Your task to perform on an android device: read, delete, or share a saved page in the chrome app Image 0: 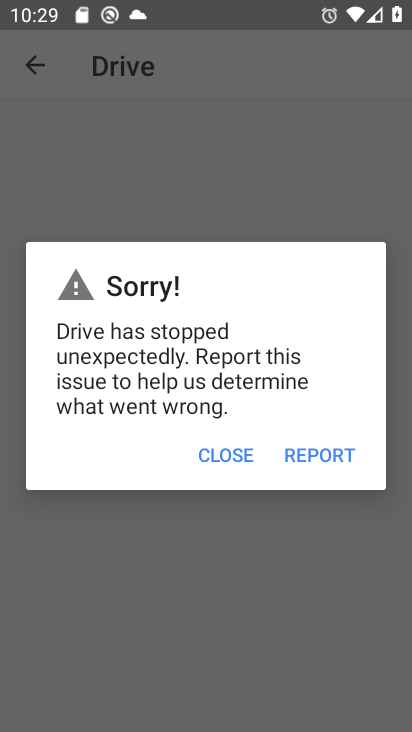
Step 0: drag from (312, 684) to (184, 183)
Your task to perform on an android device: read, delete, or share a saved page in the chrome app Image 1: 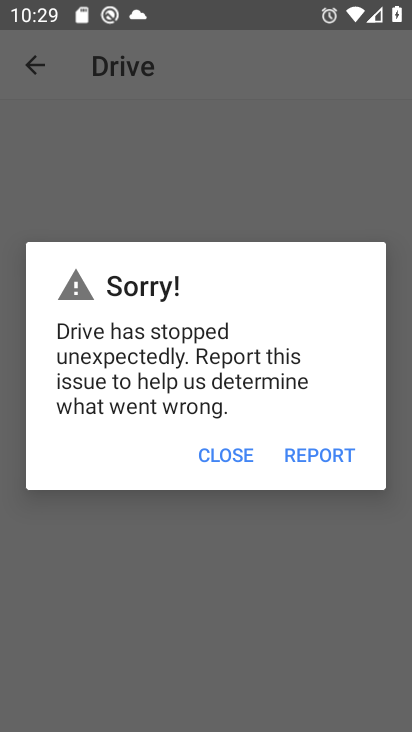
Step 1: click (212, 457)
Your task to perform on an android device: read, delete, or share a saved page in the chrome app Image 2: 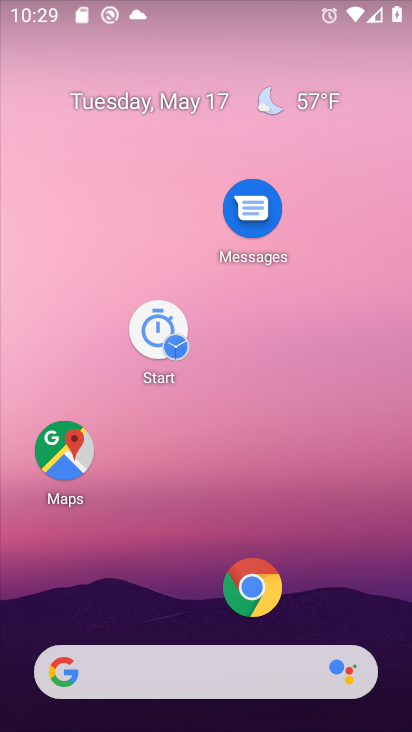
Step 2: drag from (276, 689) to (218, 185)
Your task to perform on an android device: read, delete, or share a saved page in the chrome app Image 3: 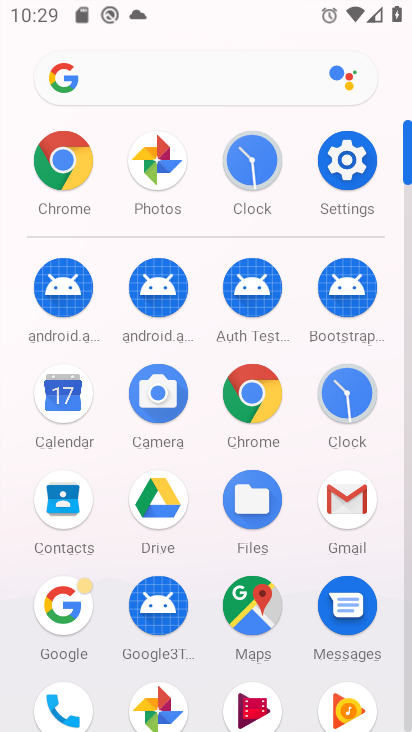
Step 3: click (61, 158)
Your task to perform on an android device: read, delete, or share a saved page in the chrome app Image 4: 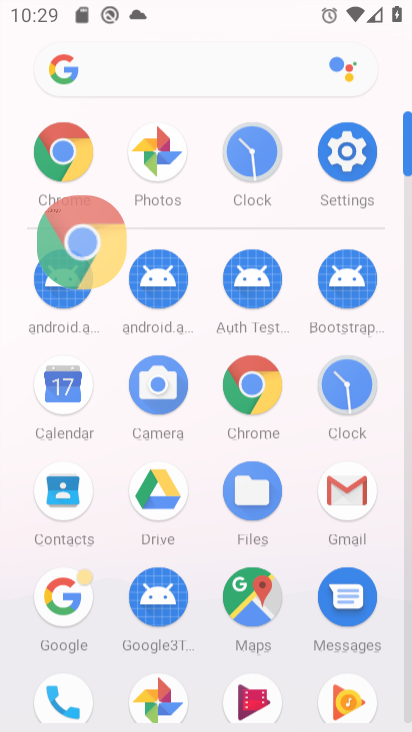
Step 4: click (50, 164)
Your task to perform on an android device: read, delete, or share a saved page in the chrome app Image 5: 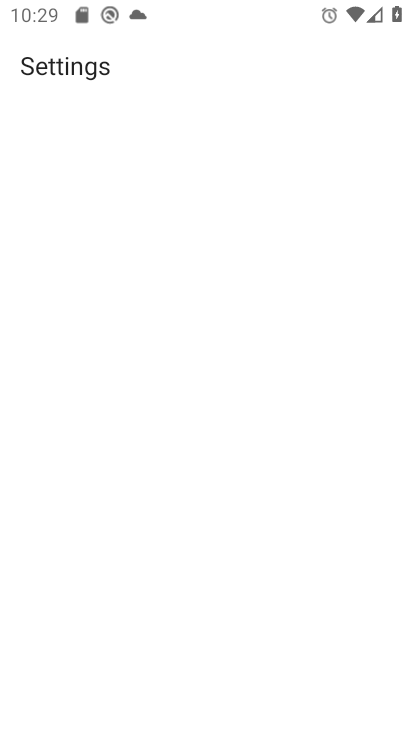
Step 5: click (29, 166)
Your task to perform on an android device: read, delete, or share a saved page in the chrome app Image 6: 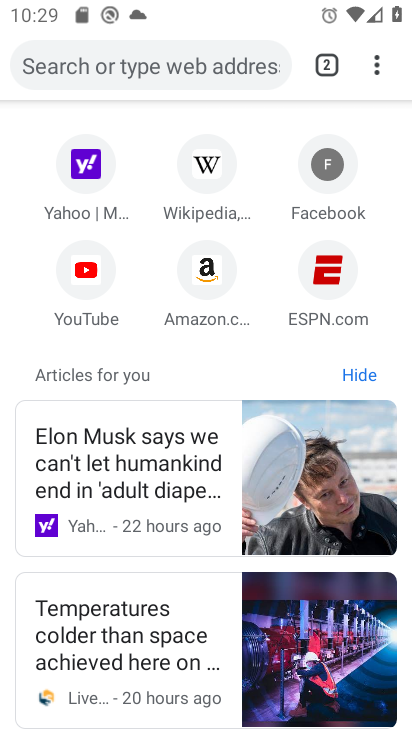
Step 6: click (373, 63)
Your task to perform on an android device: read, delete, or share a saved page in the chrome app Image 7: 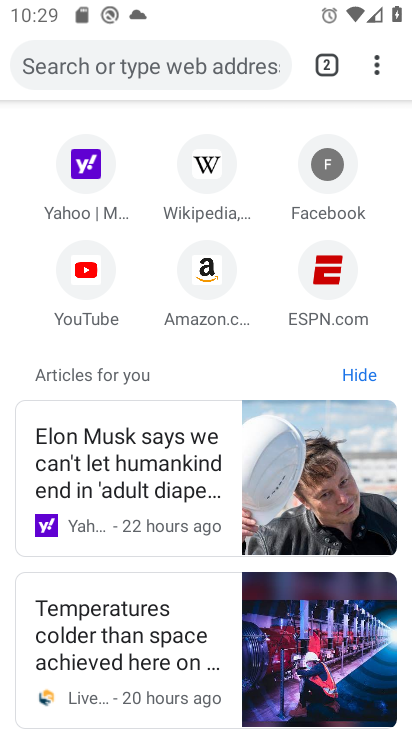
Step 7: drag from (374, 62) to (156, 424)
Your task to perform on an android device: read, delete, or share a saved page in the chrome app Image 8: 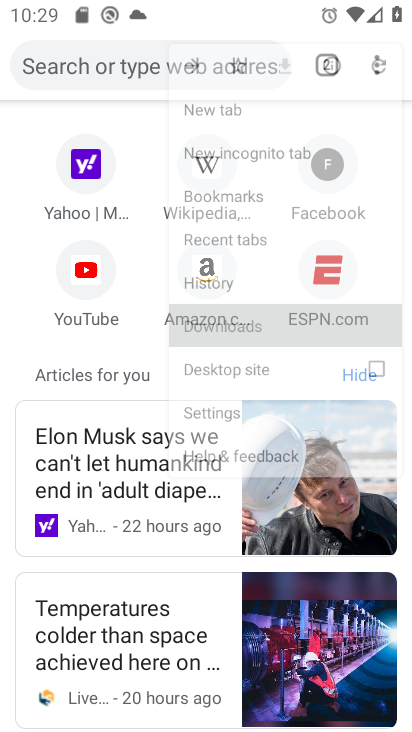
Step 8: click (159, 423)
Your task to perform on an android device: read, delete, or share a saved page in the chrome app Image 9: 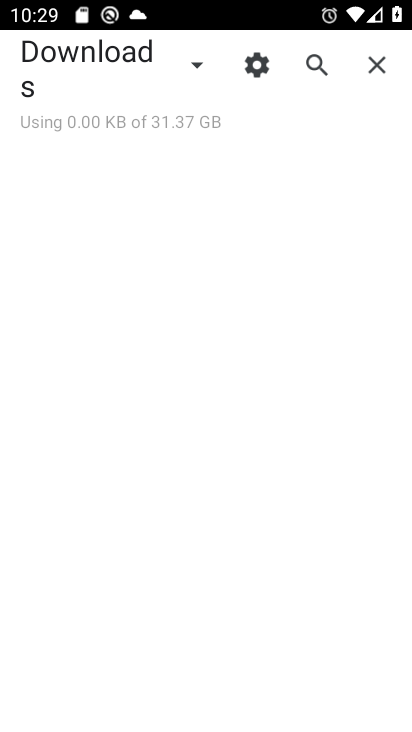
Step 9: task complete